Your task to perform on an android device: visit the assistant section in the google photos Image 0: 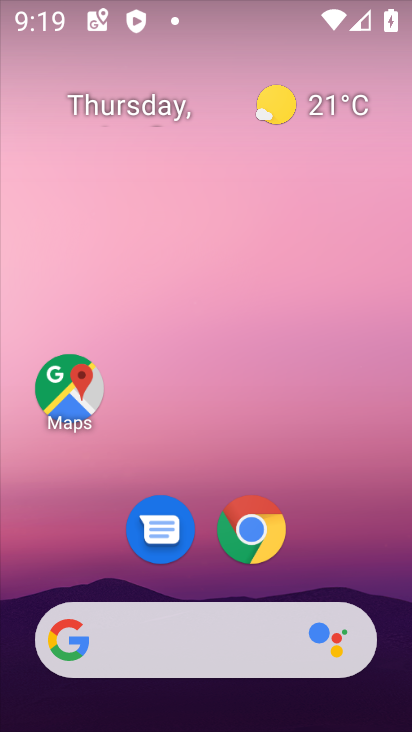
Step 0: drag from (212, 697) to (207, 88)
Your task to perform on an android device: visit the assistant section in the google photos Image 1: 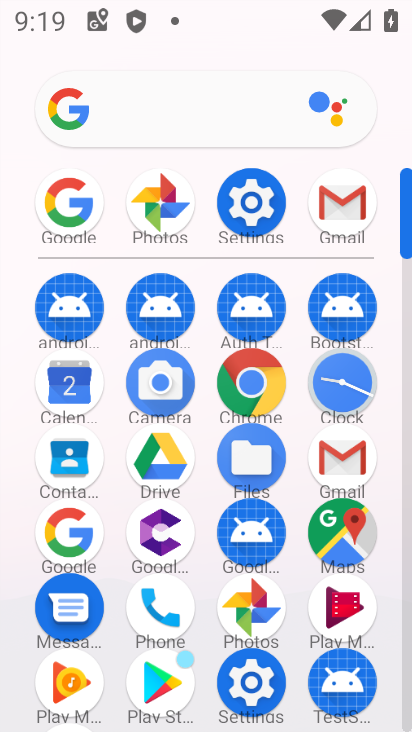
Step 1: click (241, 605)
Your task to perform on an android device: visit the assistant section in the google photos Image 2: 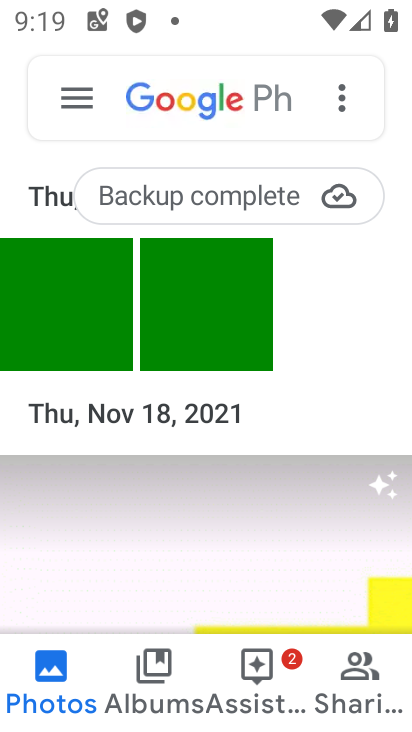
Step 2: click (242, 684)
Your task to perform on an android device: visit the assistant section in the google photos Image 3: 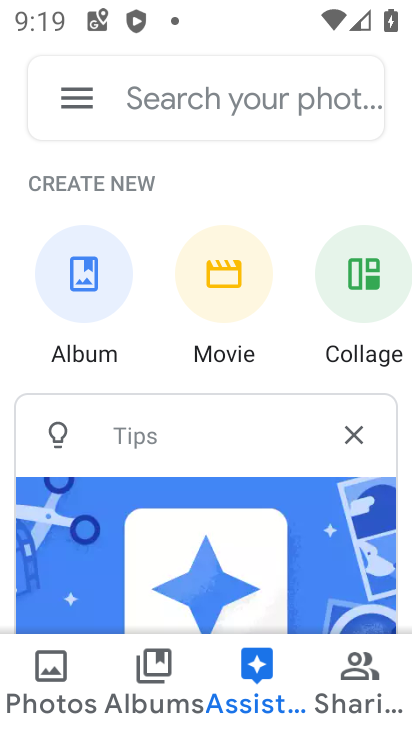
Step 3: task complete